Your task to perform on an android device: Go to network settings Image 0: 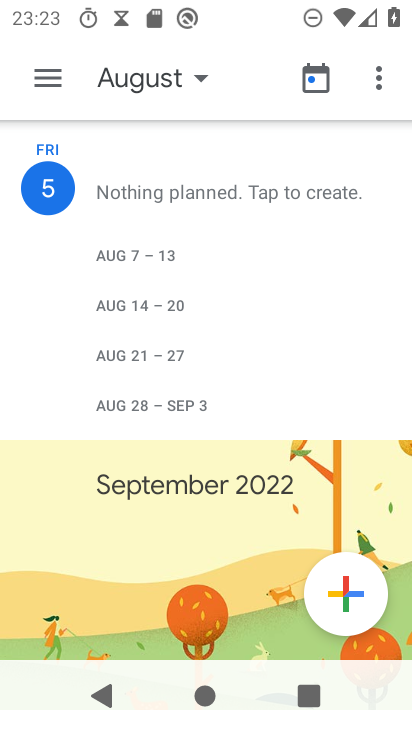
Step 0: press home button
Your task to perform on an android device: Go to network settings Image 1: 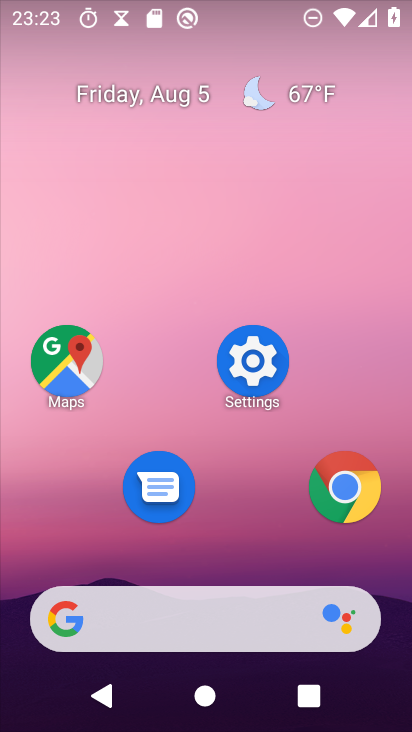
Step 1: click (259, 367)
Your task to perform on an android device: Go to network settings Image 2: 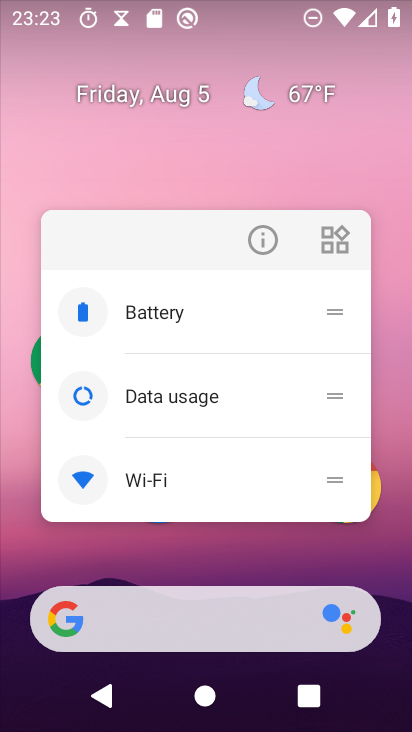
Step 2: click (393, 233)
Your task to perform on an android device: Go to network settings Image 3: 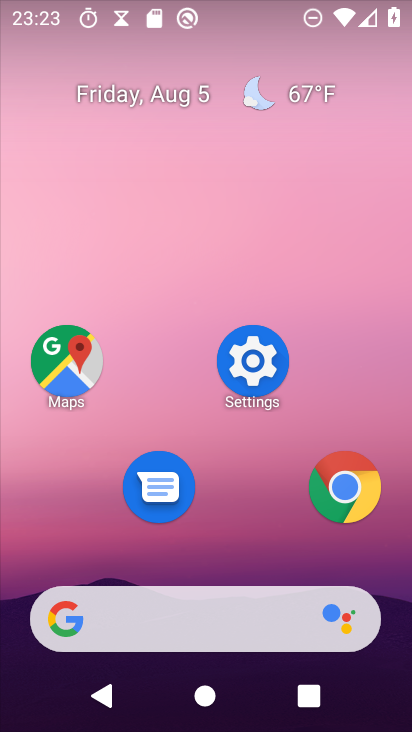
Step 3: click (244, 368)
Your task to perform on an android device: Go to network settings Image 4: 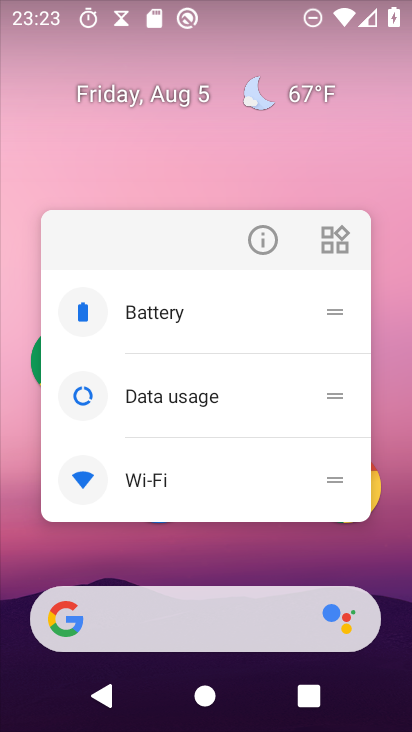
Step 4: click (329, 150)
Your task to perform on an android device: Go to network settings Image 5: 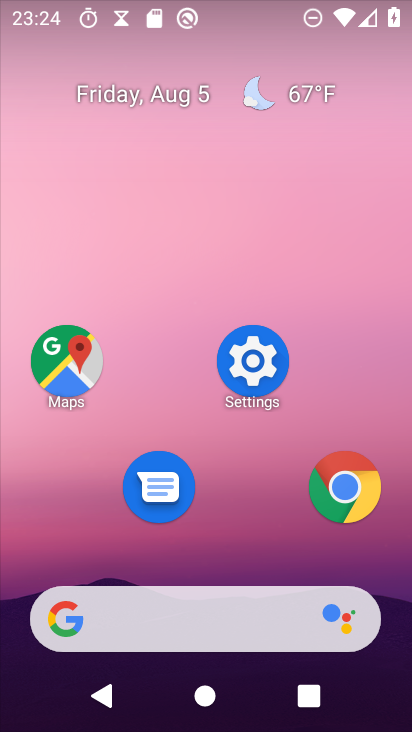
Step 5: click (252, 365)
Your task to perform on an android device: Go to network settings Image 6: 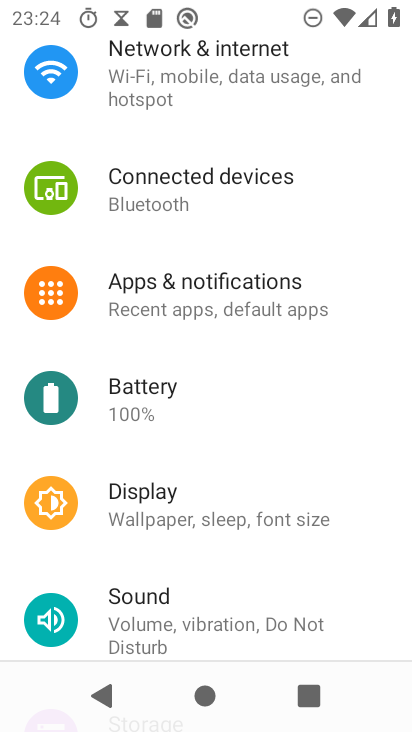
Step 6: drag from (352, 134) to (249, 570)
Your task to perform on an android device: Go to network settings Image 7: 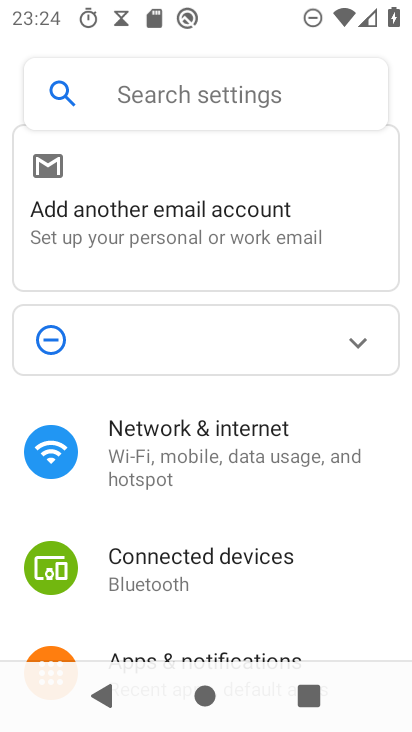
Step 7: click (223, 444)
Your task to perform on an android device: Go to network settings Image 8: 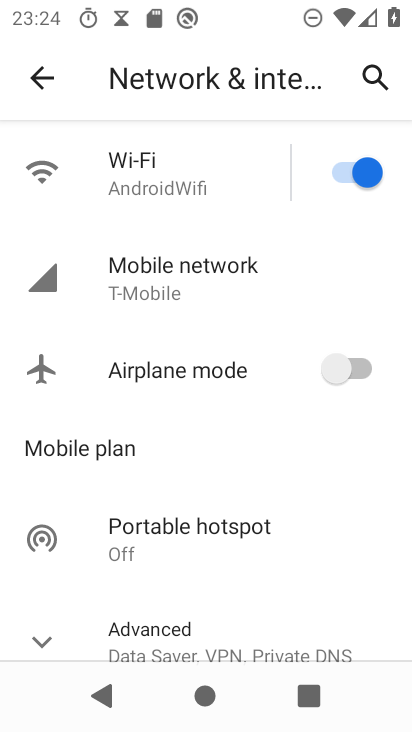
Step 8: click (177, 276)
Your task to perform on an android device: Go to network settings Image 9: 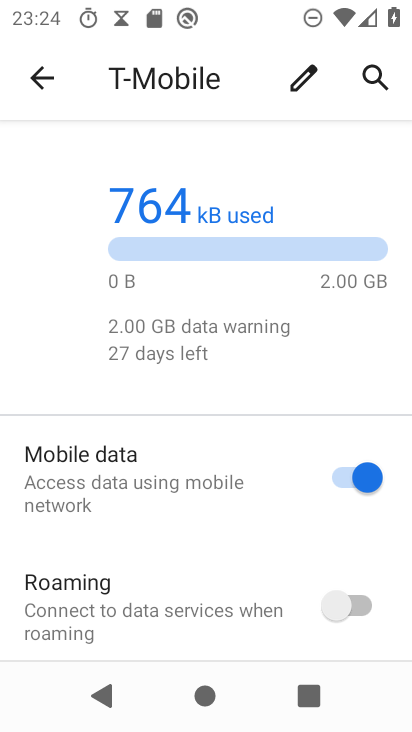
Step 9: task complete